Your task to perform on an android device: turn off notifications settings in the gmail app Image 0: 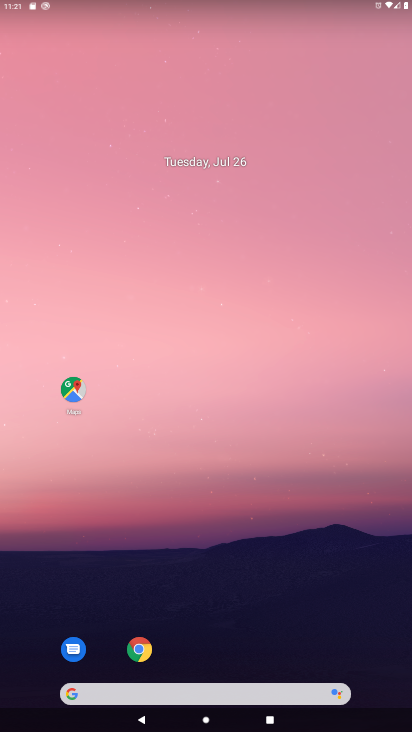
Step 0: drag from (200, 673) to (211, 25)
Your task to perform on an android device: turn off notifications settings in the gmail app Image 1: 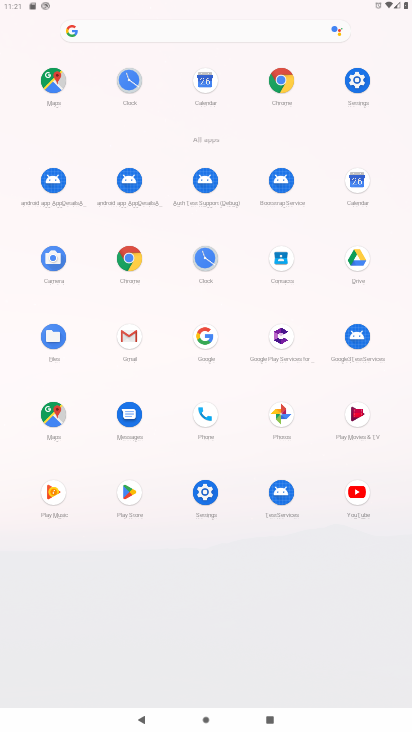
Step 1: click (124, 334)
Your task to perform on an android device: turn off notifications settings in the gmail app Image 2: 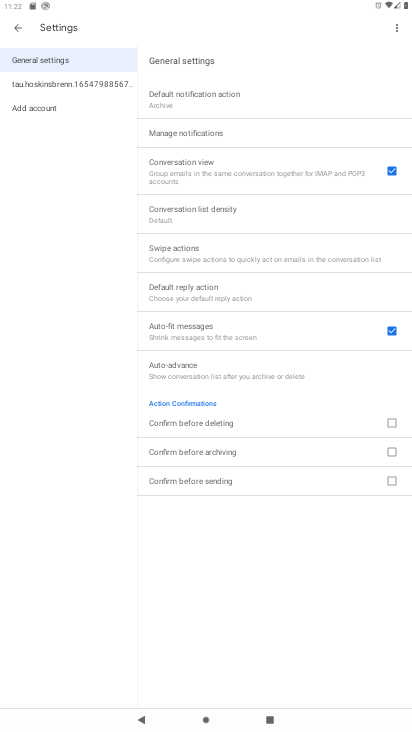
Step 2: click (223, 126)
Your task to perform on an android device: turn off notifications settings in the gmail app Image 3: 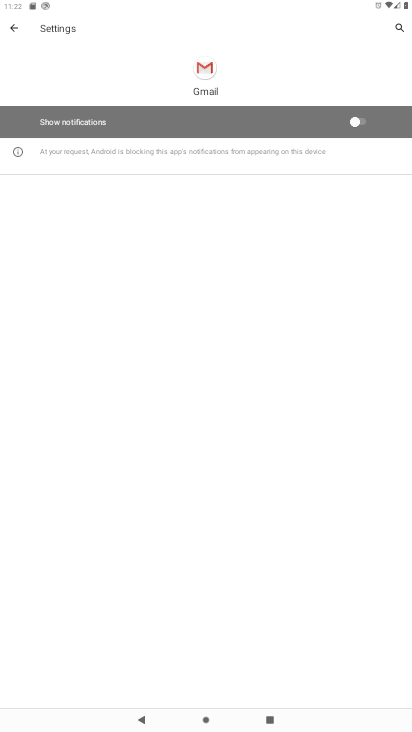
Step 3: task complete